Your task to perform on an android device: Open Google Image 0: 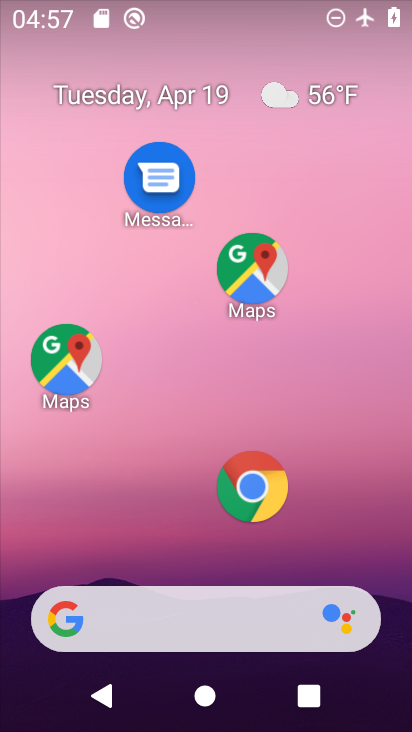
Step 0: drag from (271, 570) to (311, 94)
Your task to perform on an android device: Open Google Image 1: 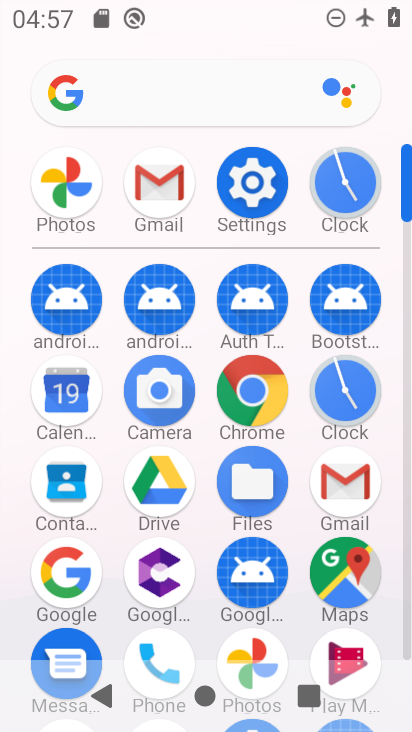
Step 1: click (84, 579)
Your task to perform on an android device: Open Google Image 2: 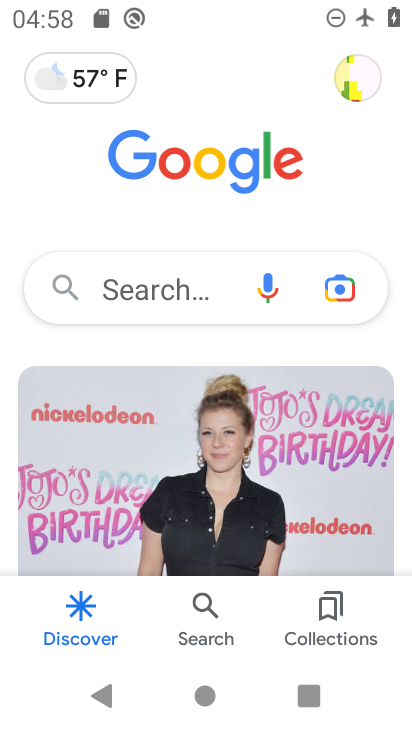
Step 2: task complete